Your task to perform on an android device: turn off smart reply in the gmail app Image 0: 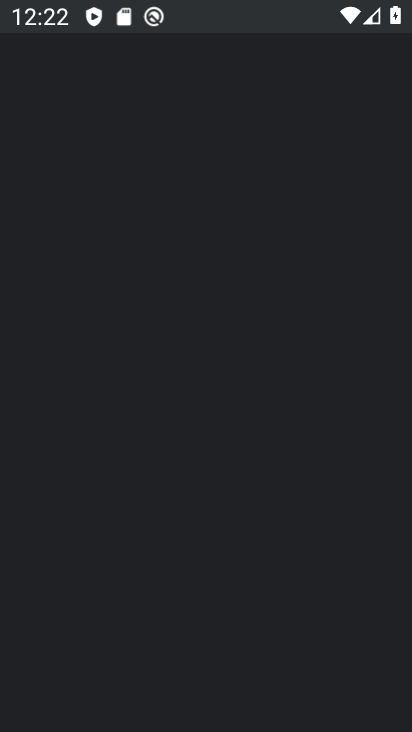
Step 0: click (326, 541)
Your task to perform on an android device: turn off smart reply in the gmail app Image 1: 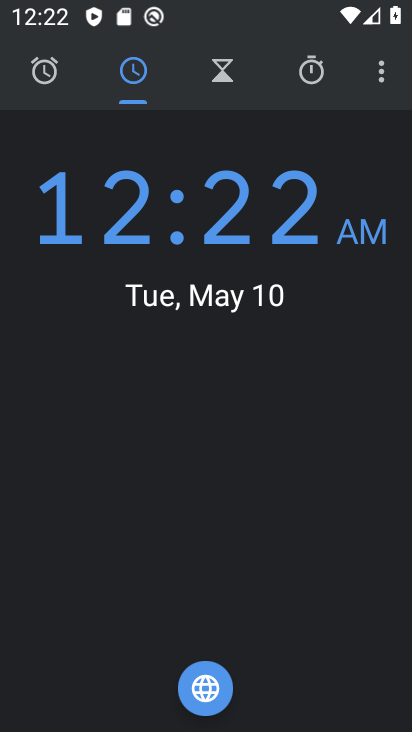
Step 1: press home button
Your task to perform on an android device: turn off smart reply in the gmail app Image 2: 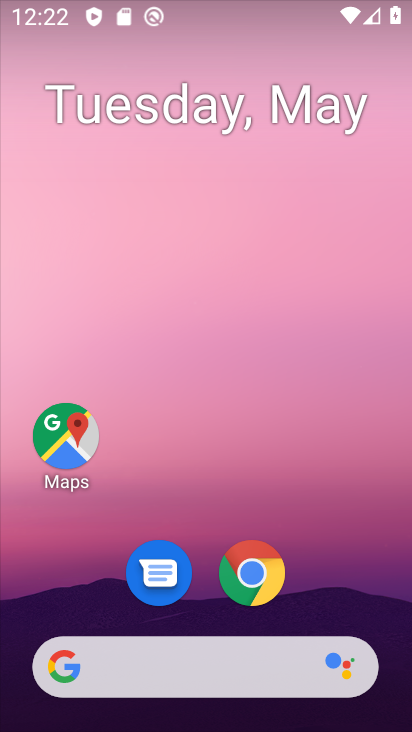
Step 2: drag from (355, 578) to (321, 107)
Your task to perform on an android device: turn off smart reply in the gmail app Image 3: 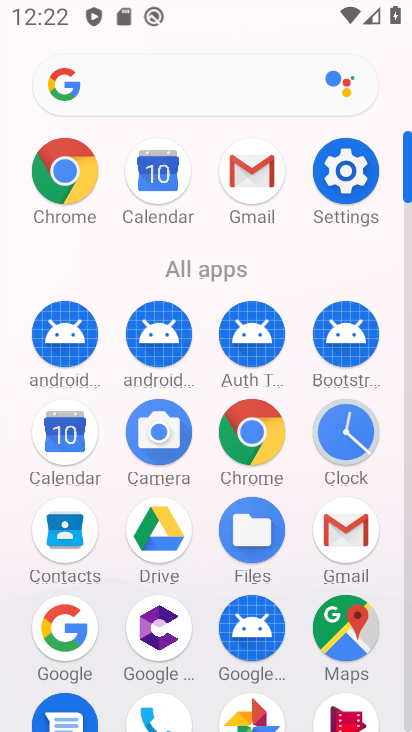
Step 3: click (266, 168)
Your task to perform on an android device: turn off smart reply in the gmail app Image 4: 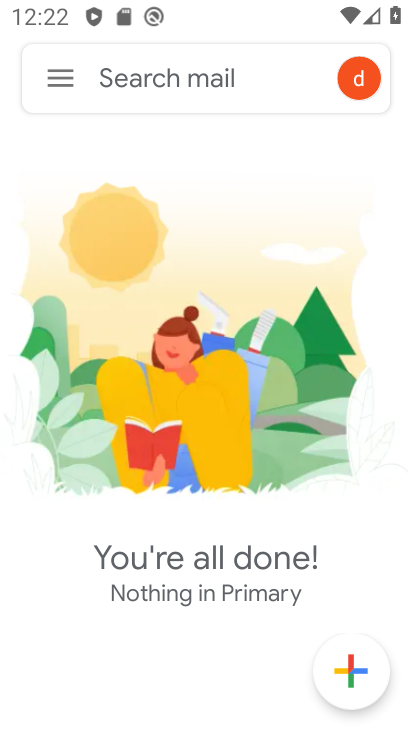
Step 4: click (47, 61)
Your task to perform on an android device: turn off smart reply in the gmail app Image 5: 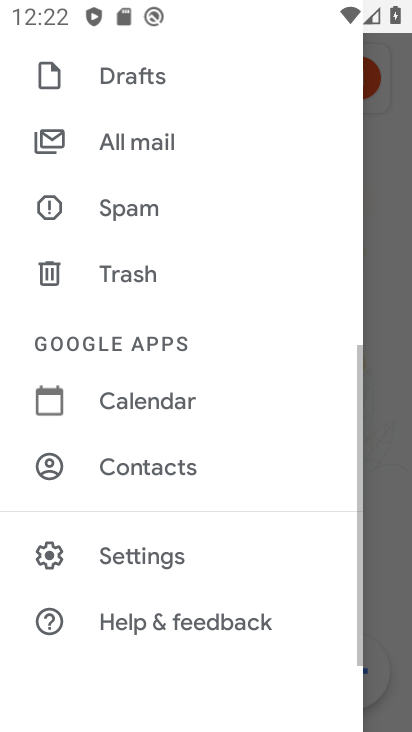
Step 5: click (89, 567)
Your task to perform on an android device: turn off smart reply in the gmail app Image 6: 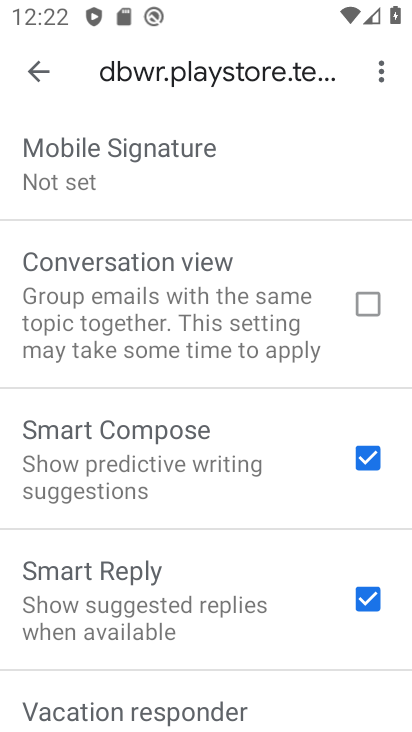
Step 6: click (376, 592)
Your task to perform on an android device: turn off smart reply in the gmail app Image 7: 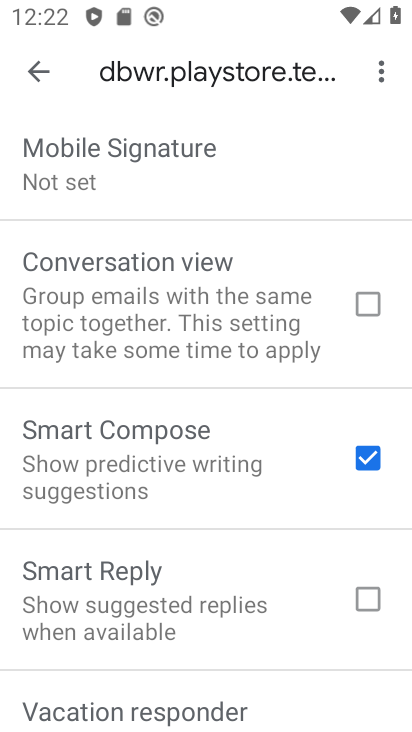
Step 7: task complete